Your task to perform on an android device: move a message to another label in the gmail app Image 0: 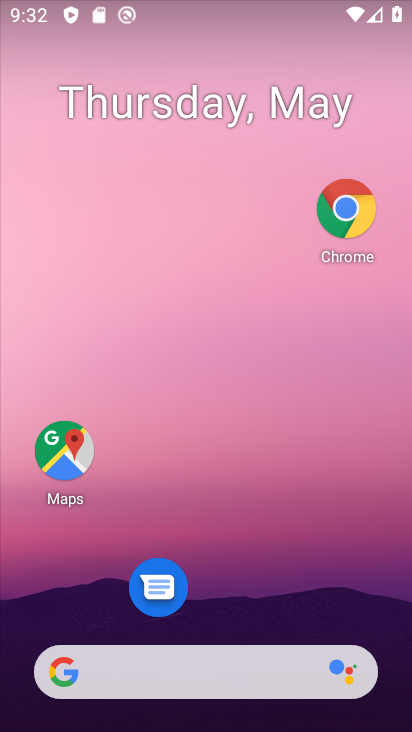
Step 0: drag from (225, 588) to (240, 11)
Your task to perform on an android device: move a message to another label in the gmail app Image 1: 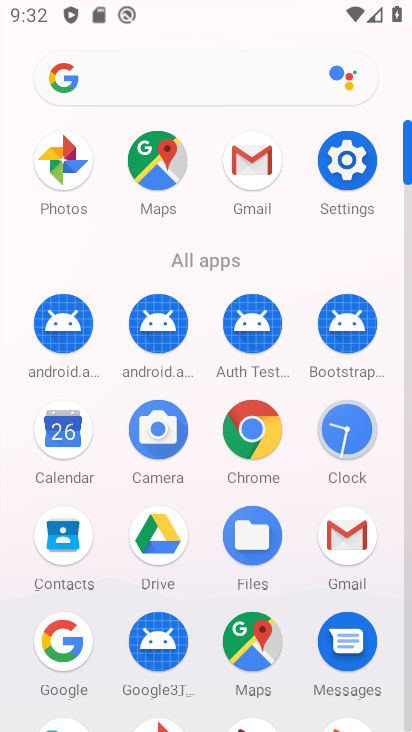
Step 1: click (241, 214)
Your task to perform on an android device: move a message to another label in the gmail app Image 2: 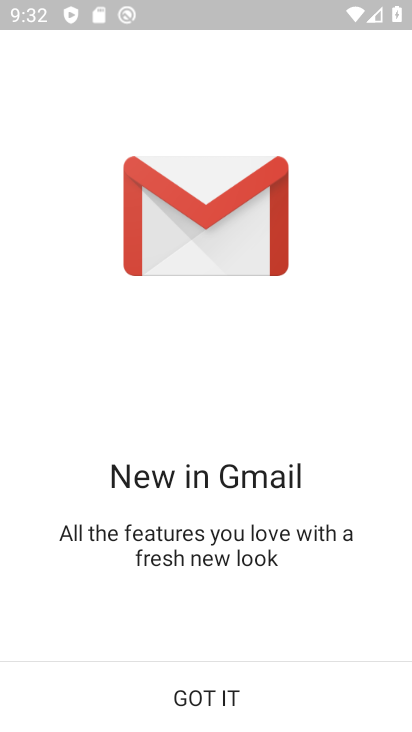
Step 2: click (203, 698)
Your task to perform on an android device: move a message to another label in the gmail app Image 3: 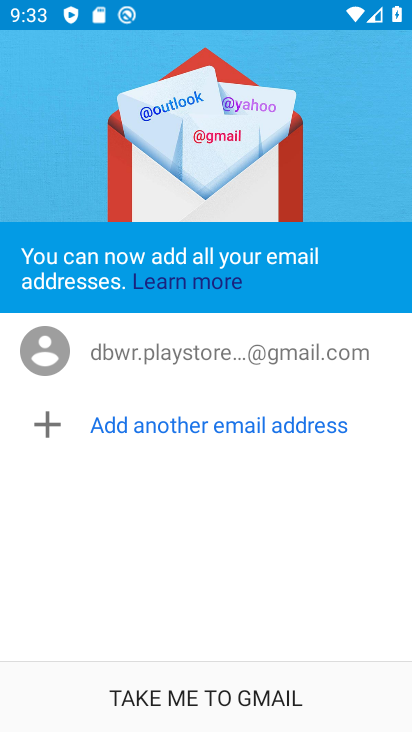
Step 3: click (202, 696)
Your task to perform on an android device: move a message to another label in the gmail app Image 4: 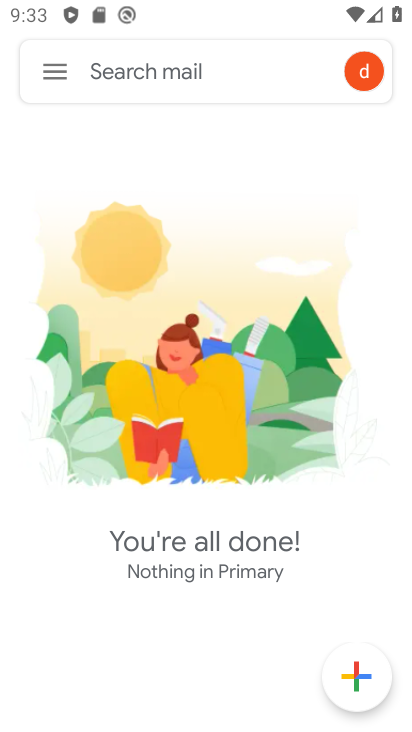
Step 4: click (43, 67)
Your task to perform on an android device: move a message to another label in the gmail app Image 5: 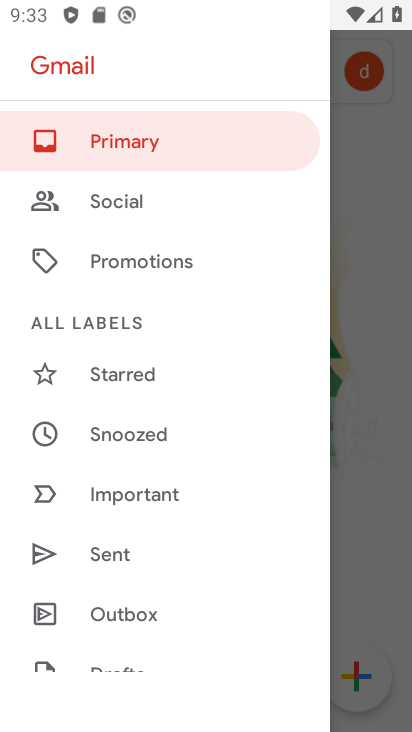
Step 5: drag from (113, 652) to (202, 357)
Your task to perform on an android device: move a message to another label in the gmail app Image 6: 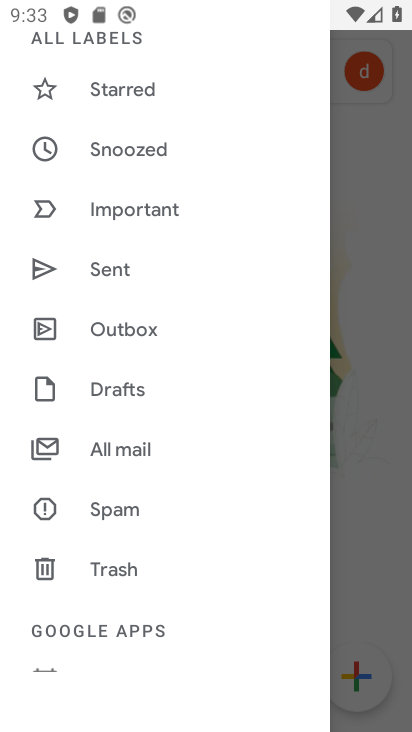
Step 6: click (141, 454)
Your task to perform on an android device: move a message to another label in the gmail app Image 7: 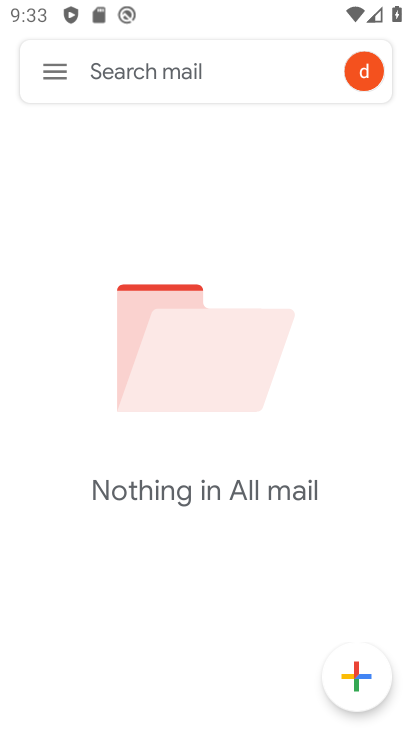
Step 7: task complete